Your task to perform on an android device: Go to sound settings Image 0: 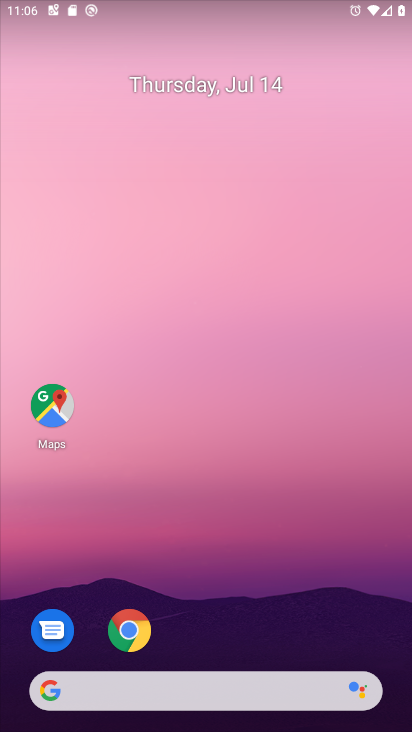
Step 0: drag from (185, 649) to (238, 67)
Your task to perform on an android device: Go to sound settings Image 1: 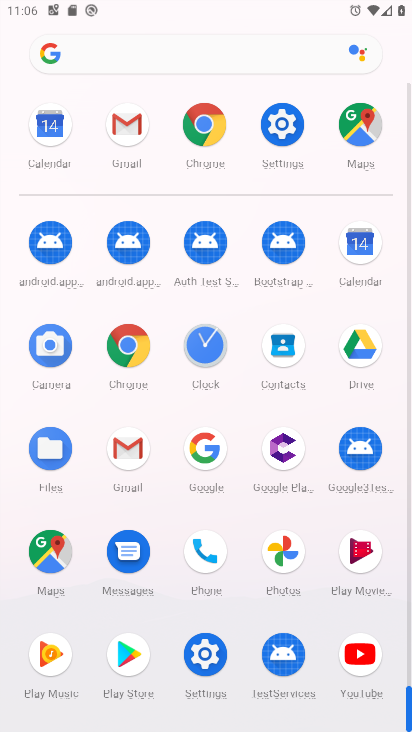
Step 1: click (279, 113)
Your task to perform on an android device: Go to sound settings Image 2: 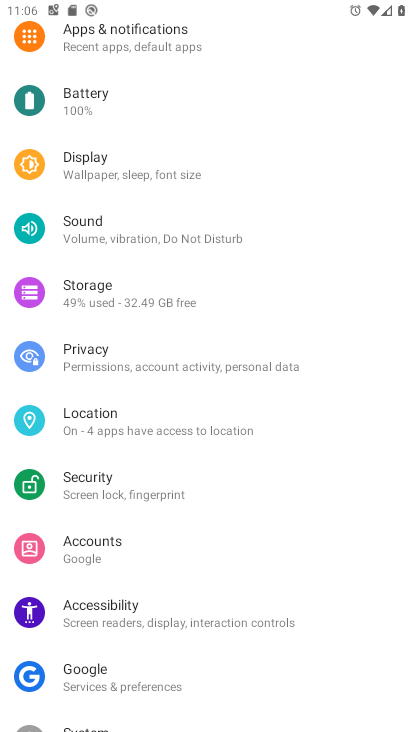
Step 2: click (116, 237)
Your task to perform on an android device: Go to sound settings Image 3: 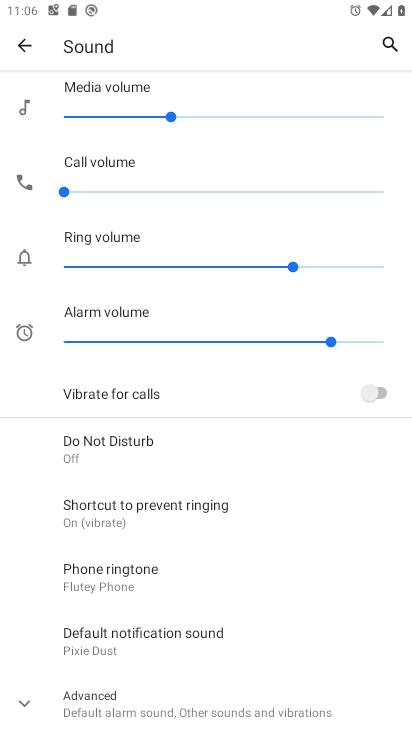
Step 3: task complete